Your task to perform on an android device: Go to Reddit.com Image 0: 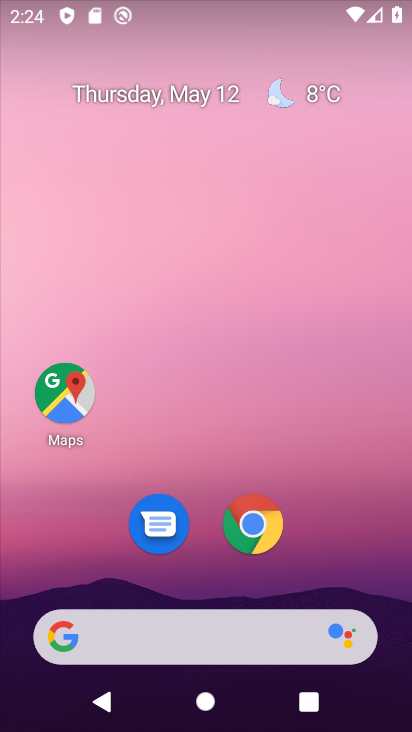
Step 0: click (184, 629)
Your task to perform on an android device: Go to Reddit.com Image 1: 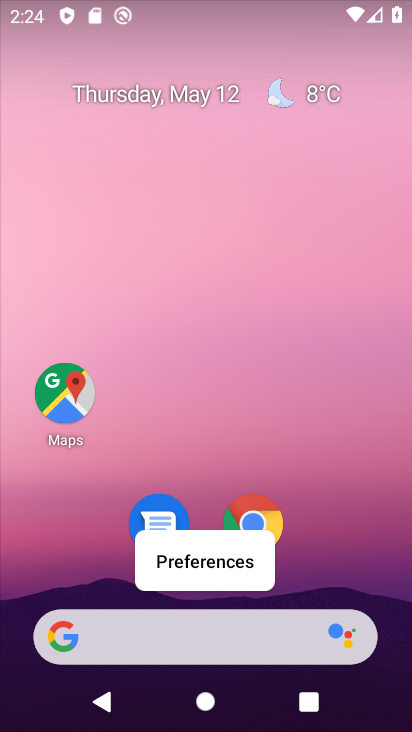
Step 1: click (184, 629)
Your task to perform on an android device: Go to Reddit.com Image 2: 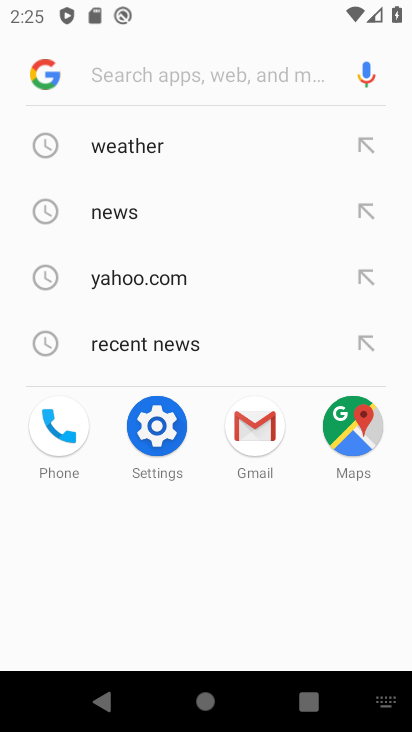
Step 2: type "reddit.com"
Your task to perform on an android device: Go to Reddit.com Image 3: 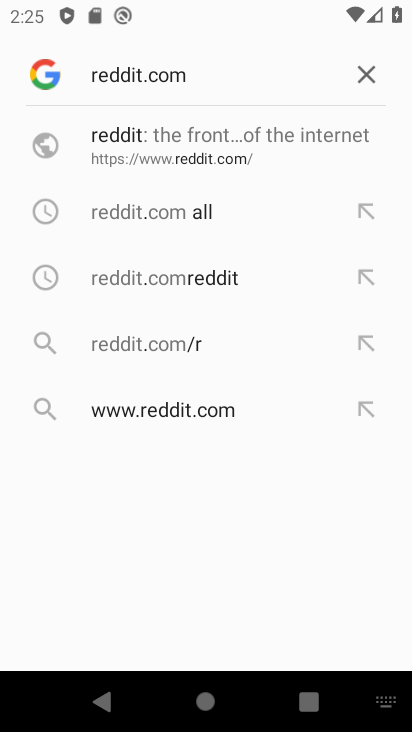
Step 3: click (104, 132)
Your task to perform on an android device: Go to Reddit.com Image 4: 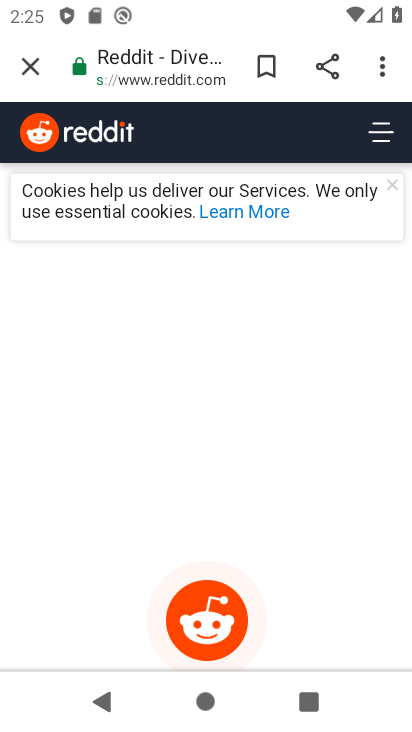
Step 4: task complete